Your task to perform on an android device: Open Youtube and go to the subscriptions tab Image 0: 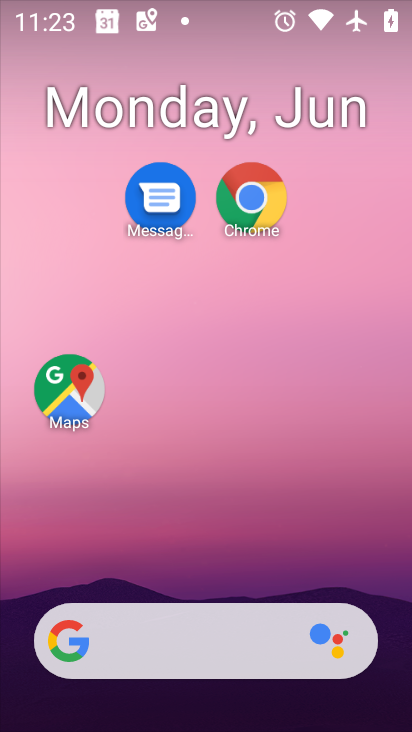
Step 0: drag from (207, 565) to (220, 136)
Your task to perform on an android device: Open Youtube and go to the subscriptions tab Image 1: 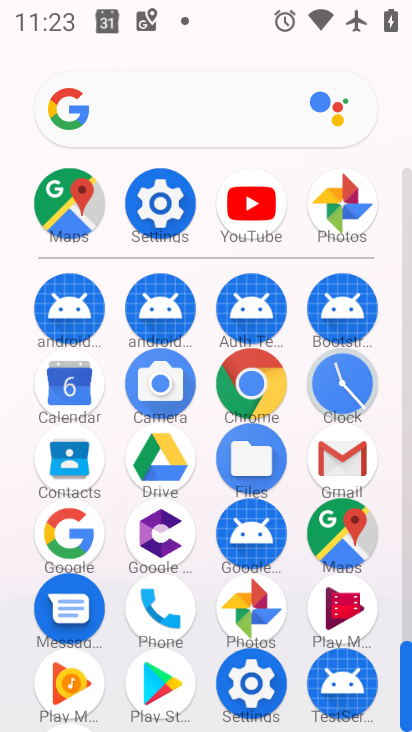
Step 1: click (259, 206)
Your task to perform on an android device: Open Youtube and go to the subscriptions tab Image 2: 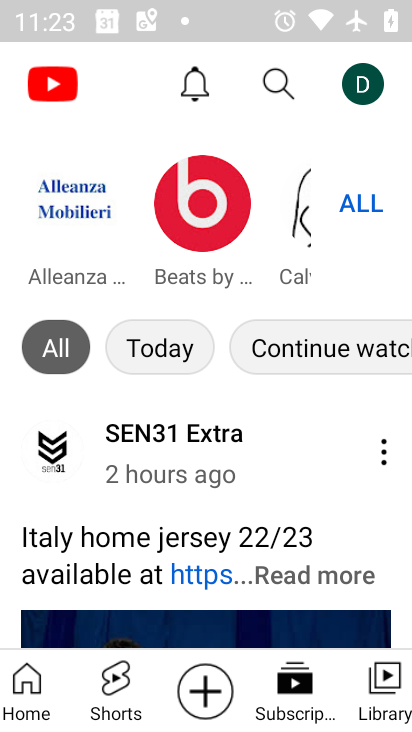
Step 2: click (289, 687)
Your task to perform on an android device: Open Youtube and go to the subscriptions tab Image 3: 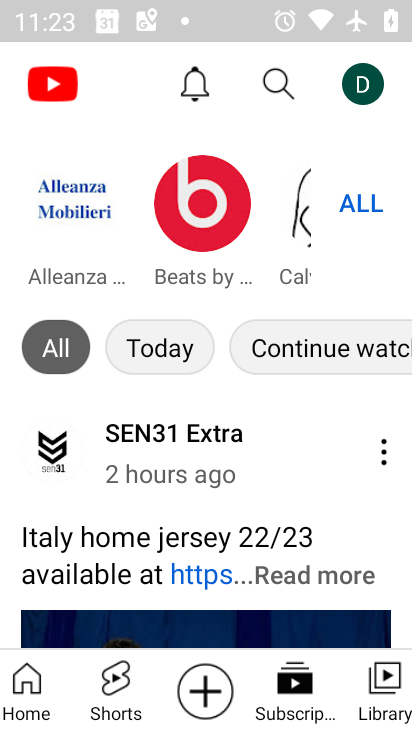
Step 3: click (300, 691)
Your task to perform on an android device: Open Youtube and go to the subscriptions tab Image 4: 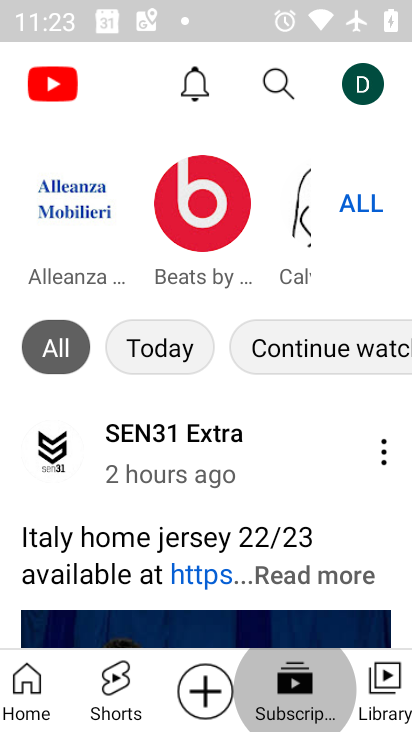
Step 4: click (300, 691)
Your task to perform on an android device: Open Youtube and go to the subscriptions tab Image 5: 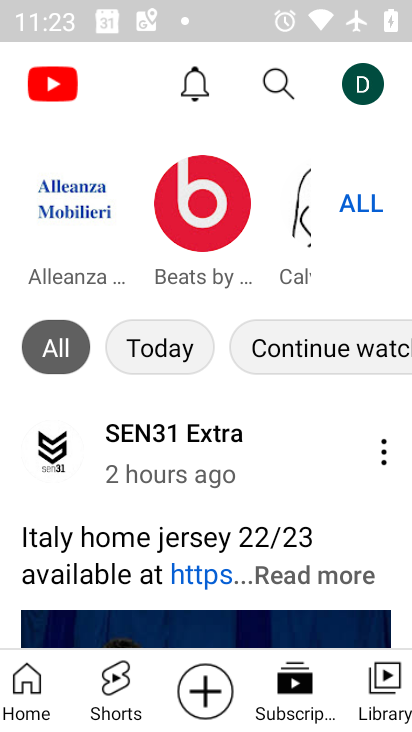
Step 5: click (300, 691)
Your task to perform on an android device: Open Youtube and go to the subscriptions tab Image 6: 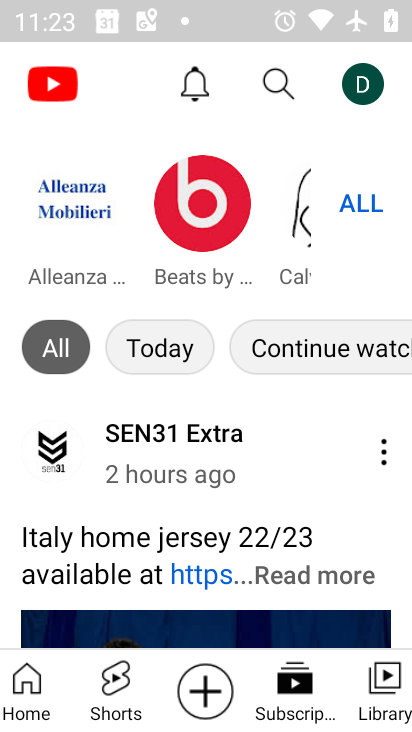
Step 6: task complete